Your task to perform on an android device: Do I have any events today? Image 0: 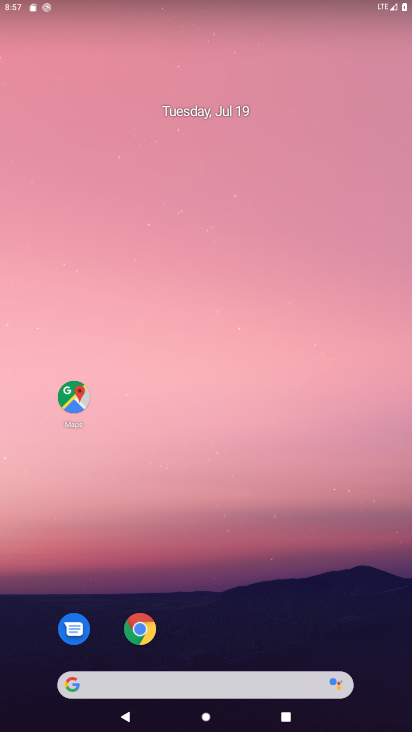
Step 0: drag from (212, 647) to (169, 29)
Your task to perform on an android device: Do I have any events today? Image 1: 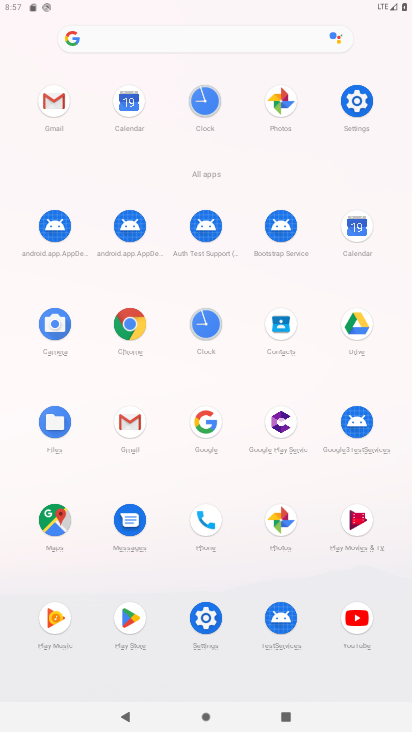
Step 1: click (365, 234)
Your task to perform on an android device: Do I have any events today? Image 2: 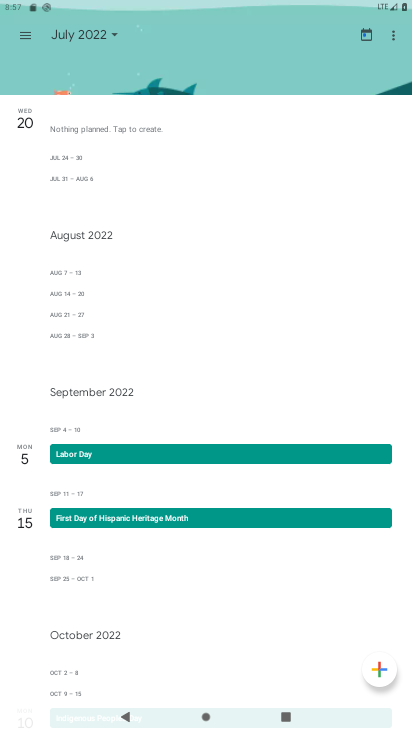
Step 2: click (365, 32)
Your task to perform on an android device: Do I have any events today? Image 3: 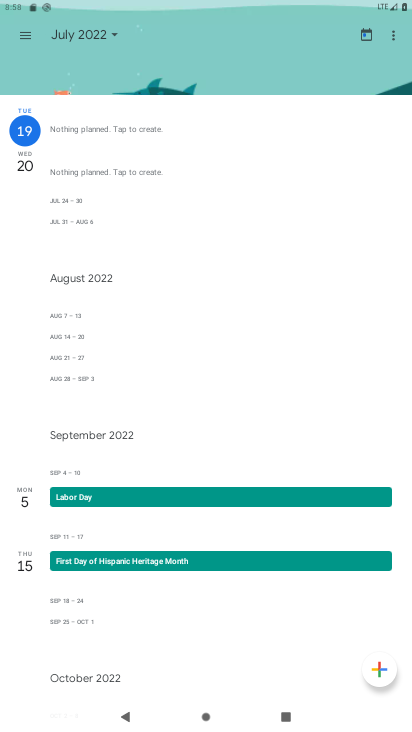
Step 3: click (12, 130)
Your task to perform on an android device: Do I have any events today? Image 4: 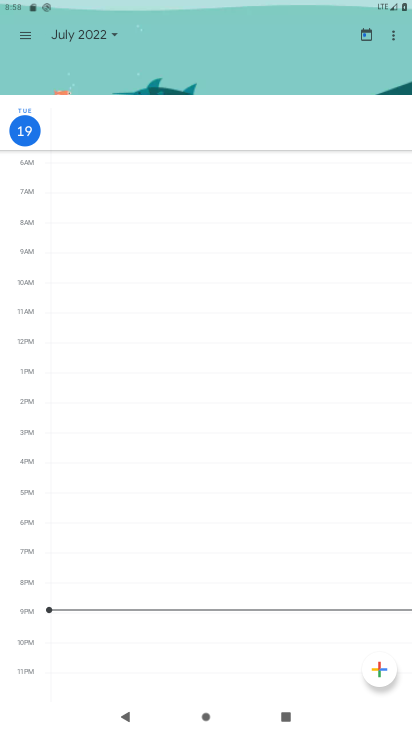
Step 4: task complete